Your task to perform on an android device: Open notification settings Image 0: 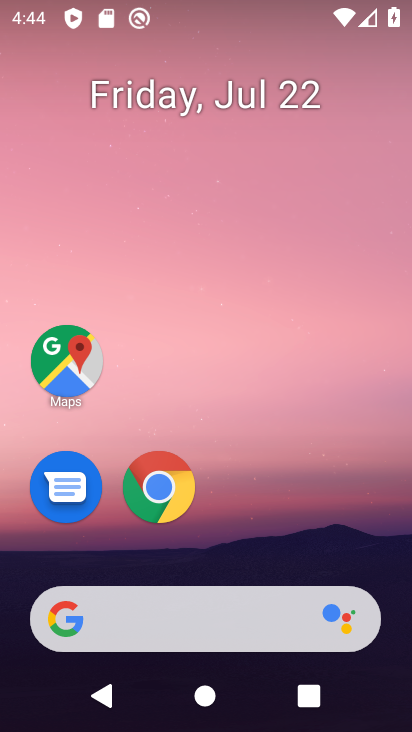
Step 0: drag from (303, 555) to (284, 119)
Your task to perform on an android device: Open notification settings Image 1: 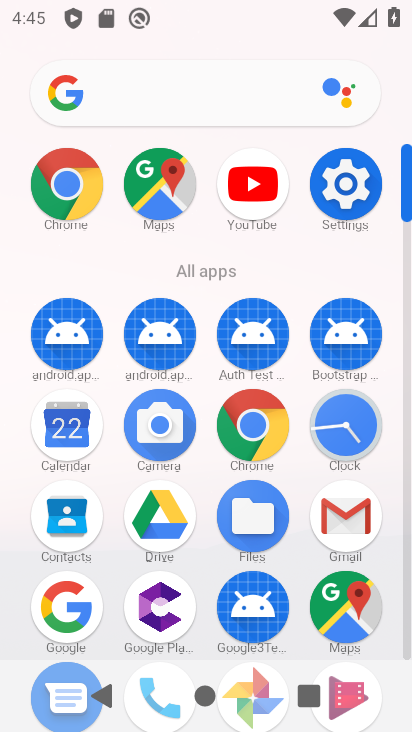
Step 1: click (344, 184)
Your task to perform on an android device: Open notification settings Image 2: 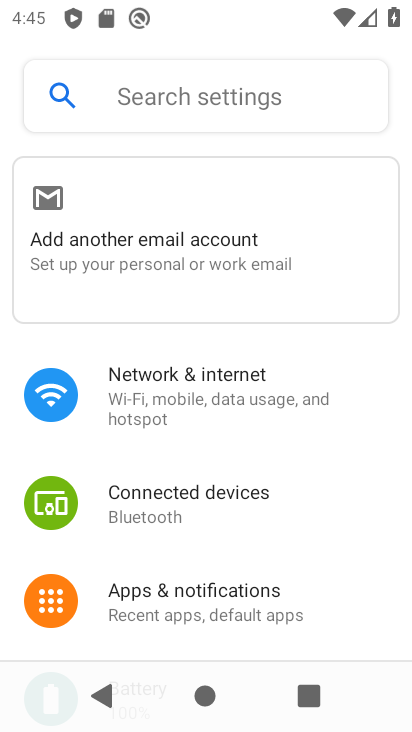
Step 2: click (248, 575)
Your task to perform on an android device: Open notification settings Image 3: 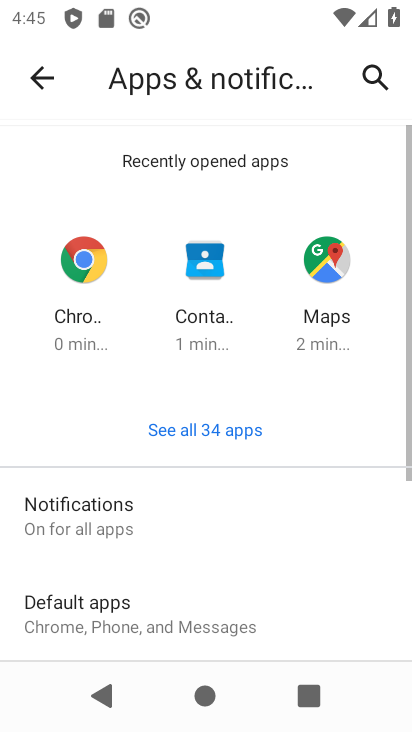
Step 3: click (175, 532)
Your task to perform on an android device: Open notification settings Image 4: 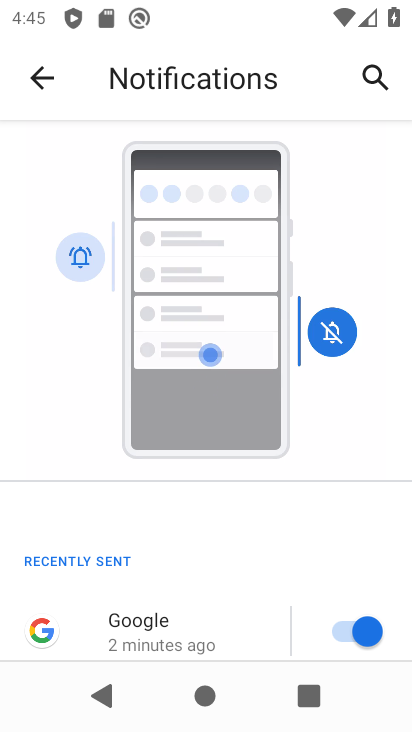
Step 4: task complete